Your task to perform on an android device: Open Yahoo.com Image 0: 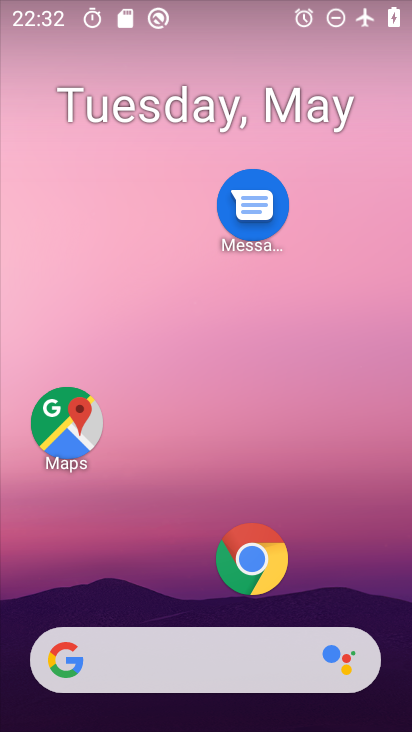
Step 0: click (242, 575)
Your task to perform on an android device: Open Yahoo.com Image 1: 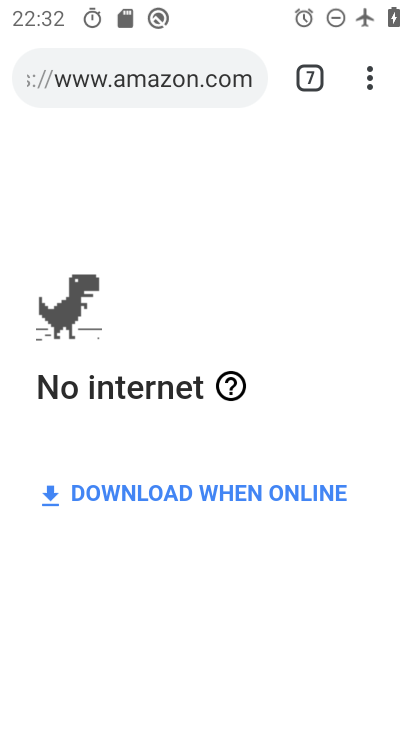
Step 1: click (308, 66)
Your task to perform on an android device: Open Yahoo.com Image 2: 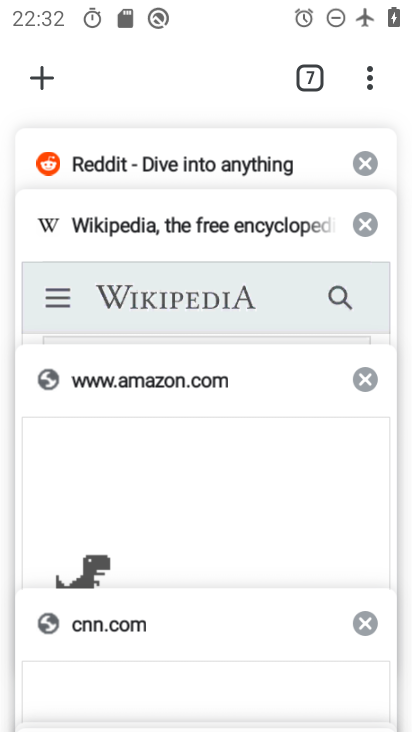
Step 2: drag from (199, 263) to (216, 500)
Your task to perform on an android device: Open Yahoo.com Image 3: 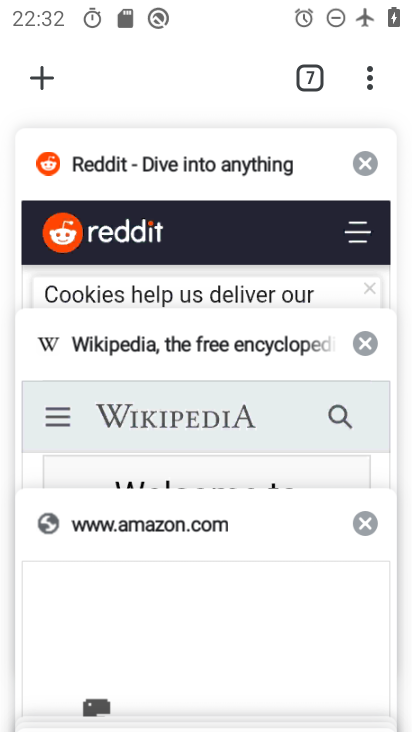
Step 3: drag from (209, 250) to (241, 545)
Your task to perform on an android device: Open Yahoo.com Image 4: 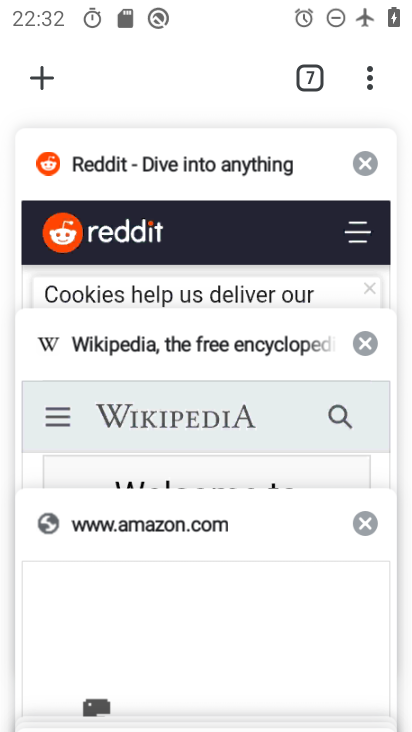
Step 4: drag from (197, 243) to (200, 440)
Your task to perform on an android device: Open Yahoo.com Image 5: 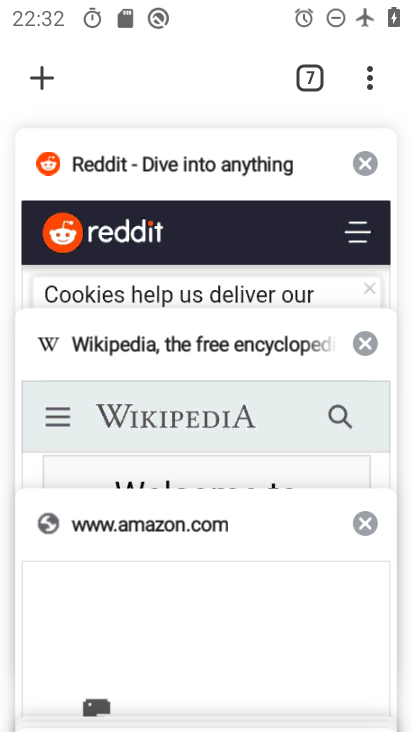
Step 5: drag from (192, 242) to (228, 542)
Your task to perform on an android device: Open Yahoo.com Image 6: 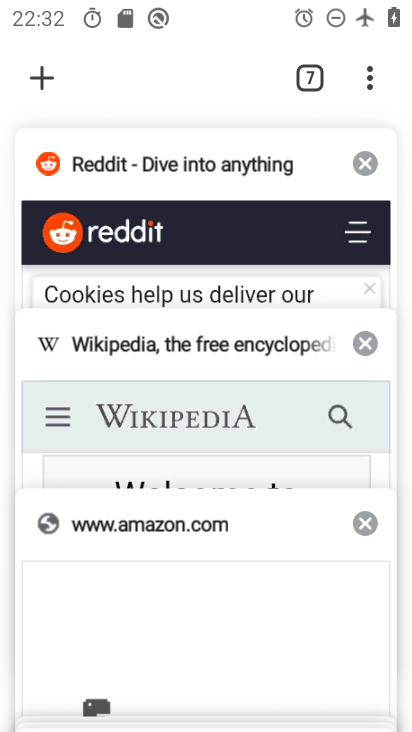
Step 6: drag from (229, 611) to (229, 237)
Your task to perform on an android device: Open Yahoo.com Image 7: 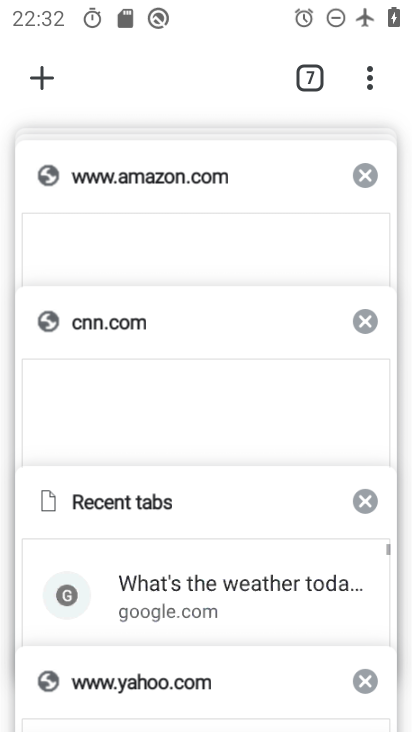
Step 7: drag from (219, 591) to (223, 261)
Your task to perform on an android device: Open Yahoo.com Image 8: 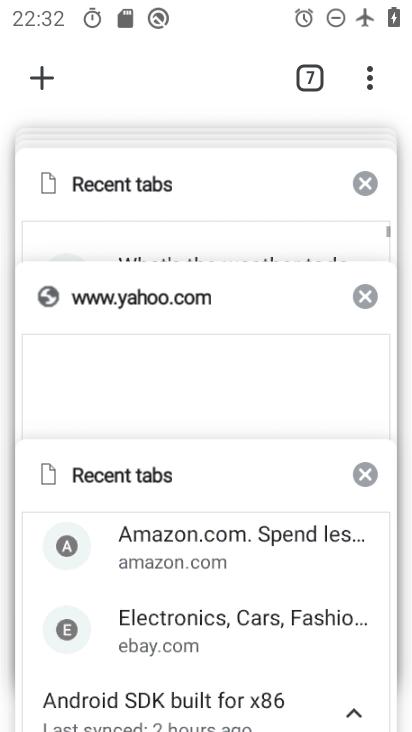
Step 8: click (182, 354)
Your task to perform on an android device: Open Yahoo.com Image 9: 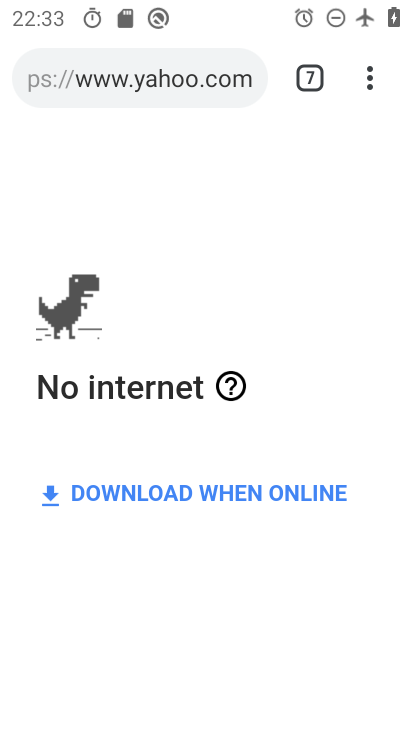
Step 9: task complete